Your task to perform on an android device: Do I have any events today? Image 0: 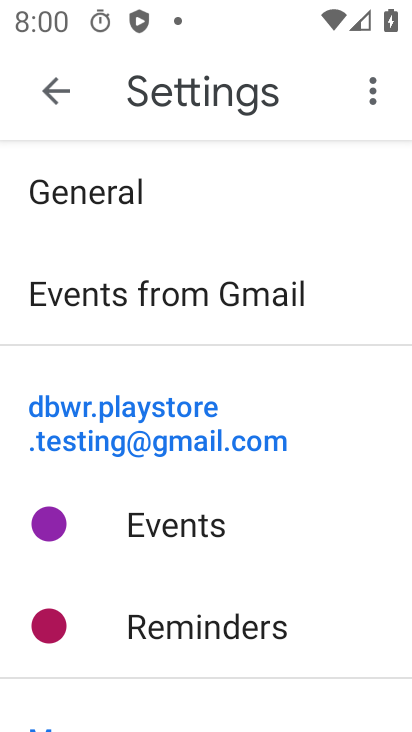
Step 0: press home button
Your task to perform on an android device: Do I have any events today? Image 1: 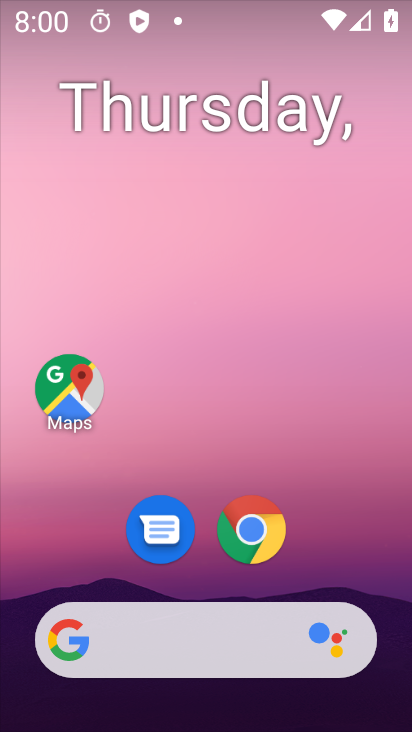
Step 1: drag from (386, 679) to (342, 106)
Your task to perform on an android device: Do I have any events today? Image 2: 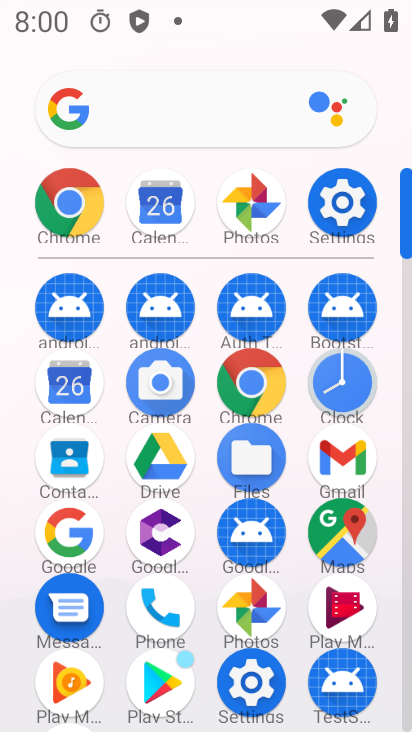
Step 2: click (53, 395)
Your task to perform on an android device: Do I have any events today? Image 3: 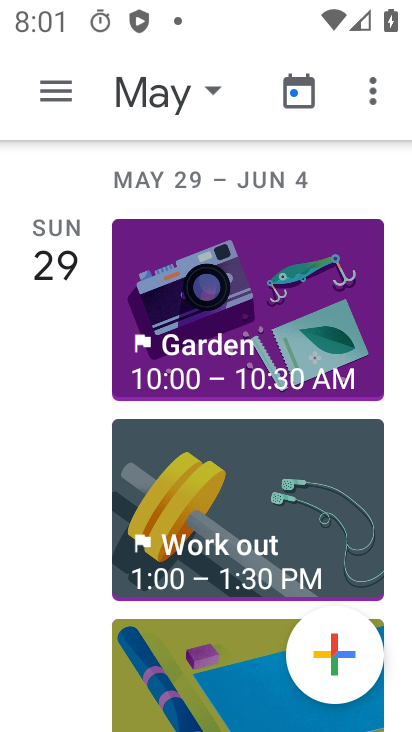
Step 3: click (68, 91)
Your task to perform on an android device: Do I have any events today? Image 4: 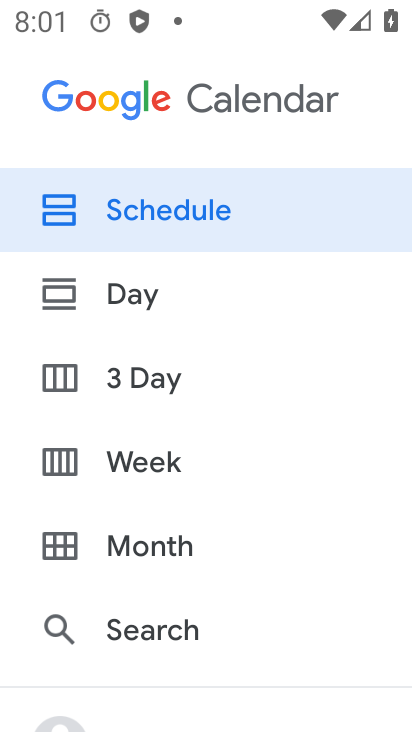
Step 4: click (103, 288)
Your task to perform on an android device: Do I have any events today? Image 5: 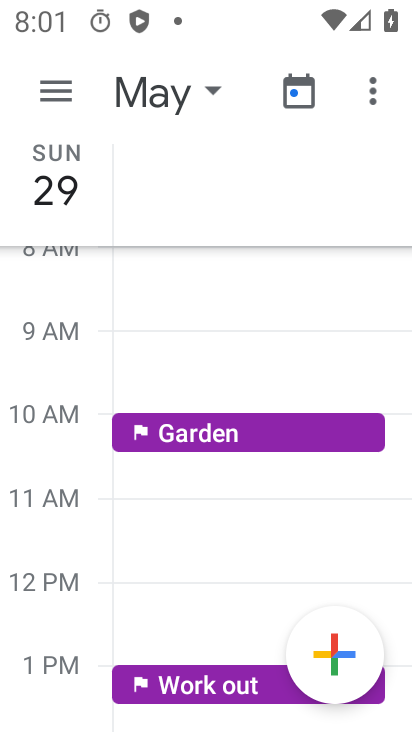
Step 5: task complete